Your task to perform on an android device: Open the contacts Image 0: 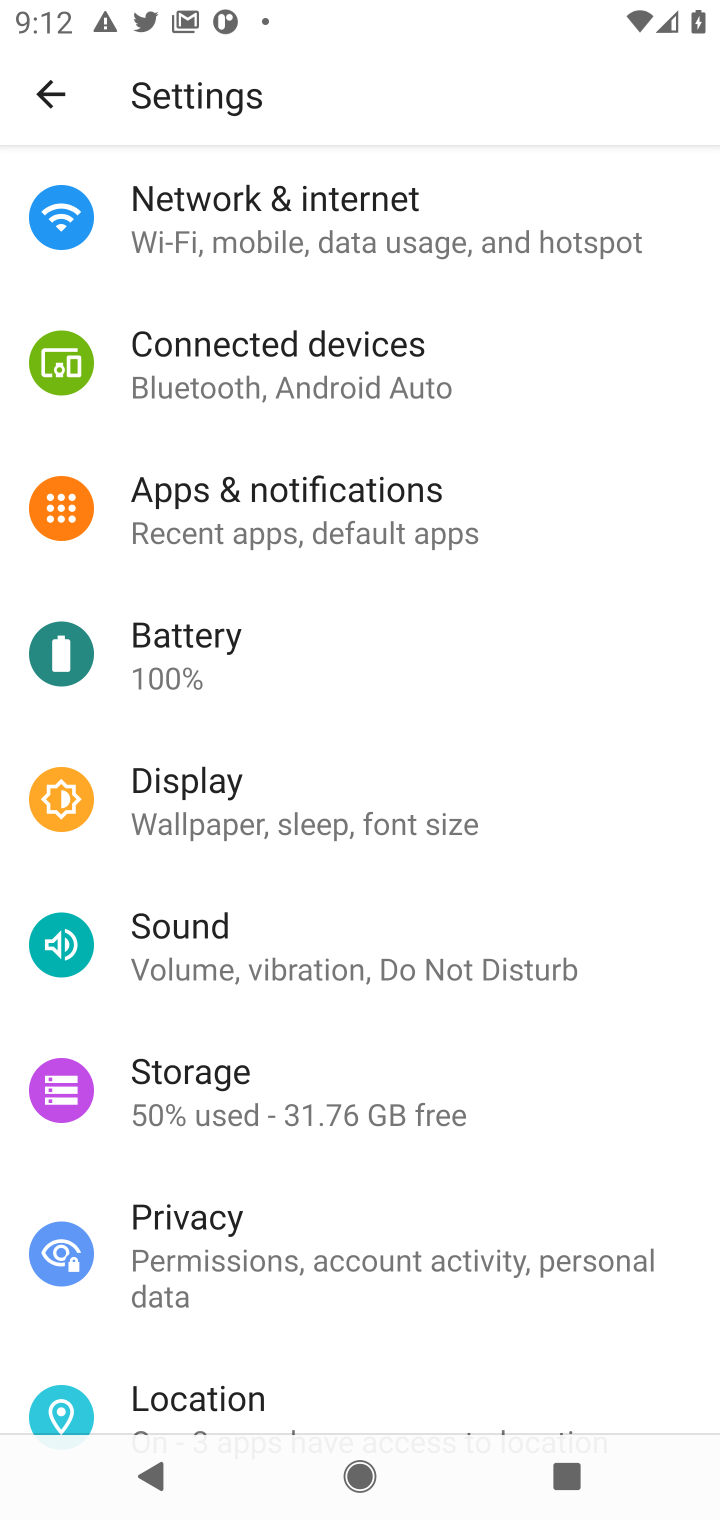
Step 0: press home button
Your task to perform on an android device: Open the contacts Image 1: 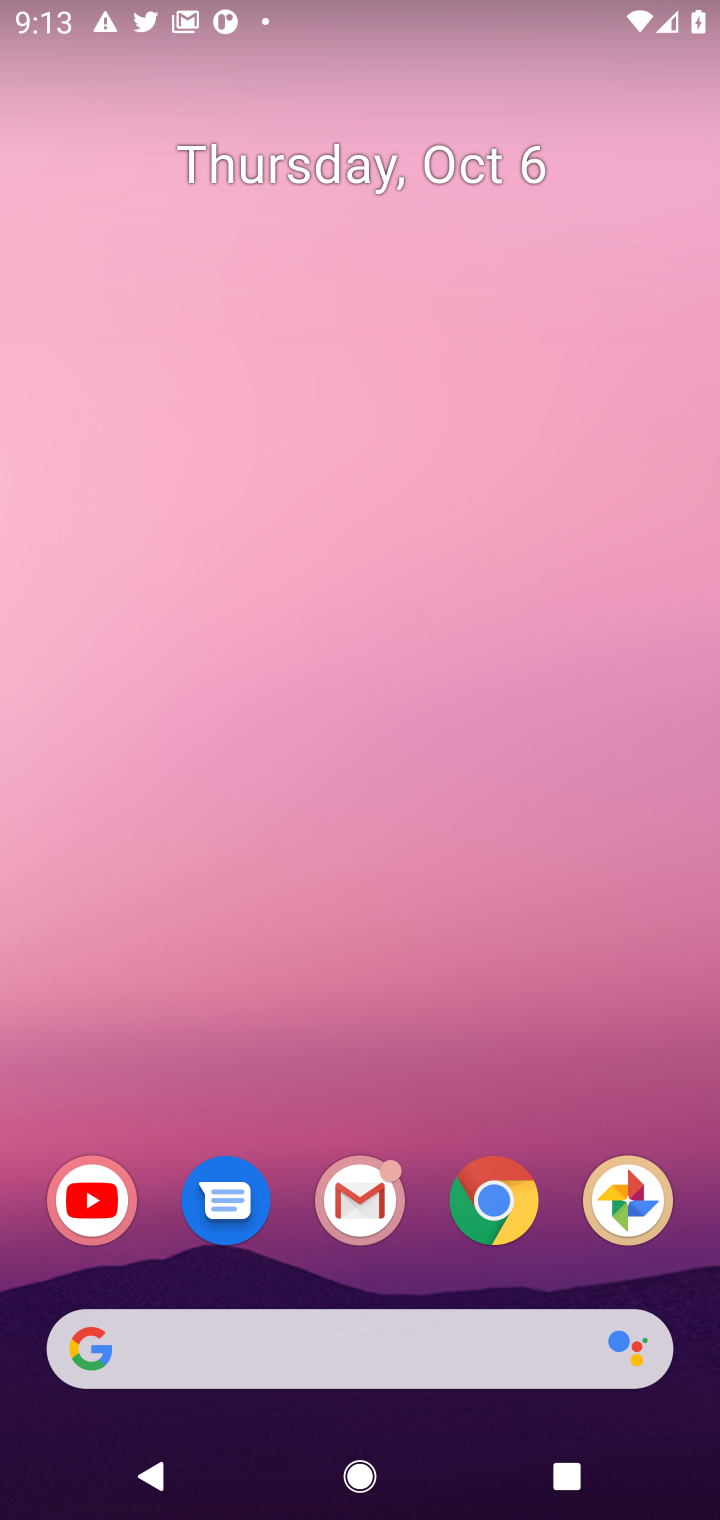
Step 1: click (514, 1187)
Your task to perform on an android device: Open the contacts Image 2: 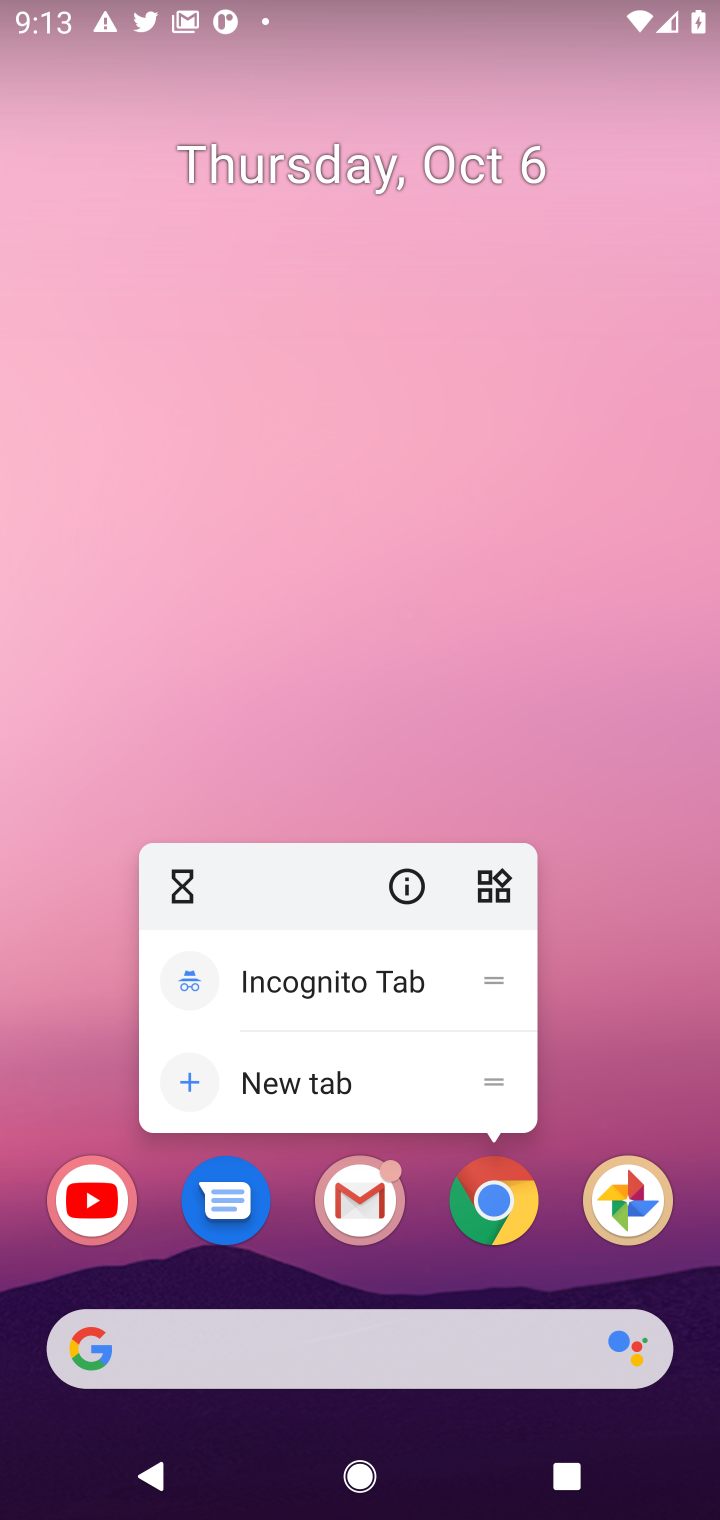
Step 2: click (499, 1201)
Your task to perform on an android device: Open the contacts Image 3: 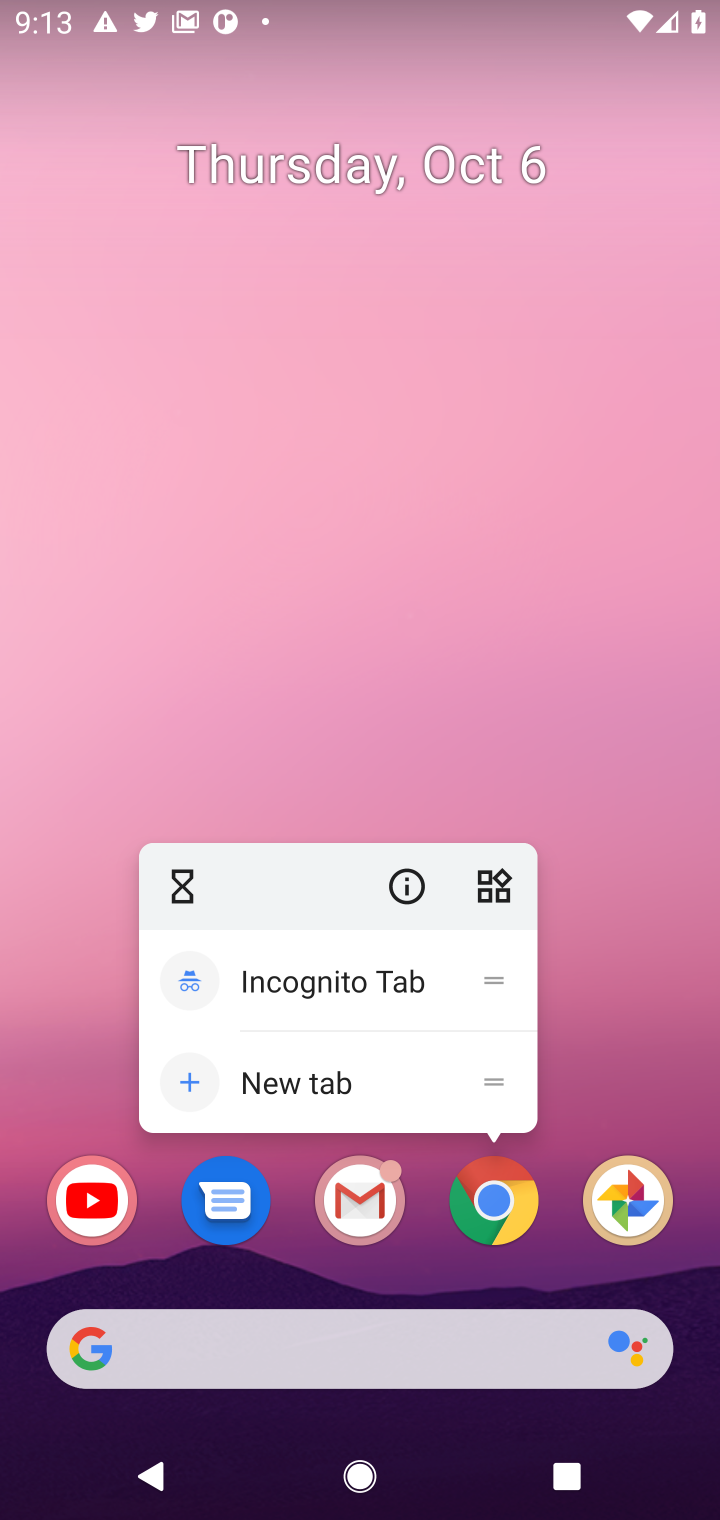
Step 3: press home button
Your task to perform on an android device: Open the contacts Image 4: 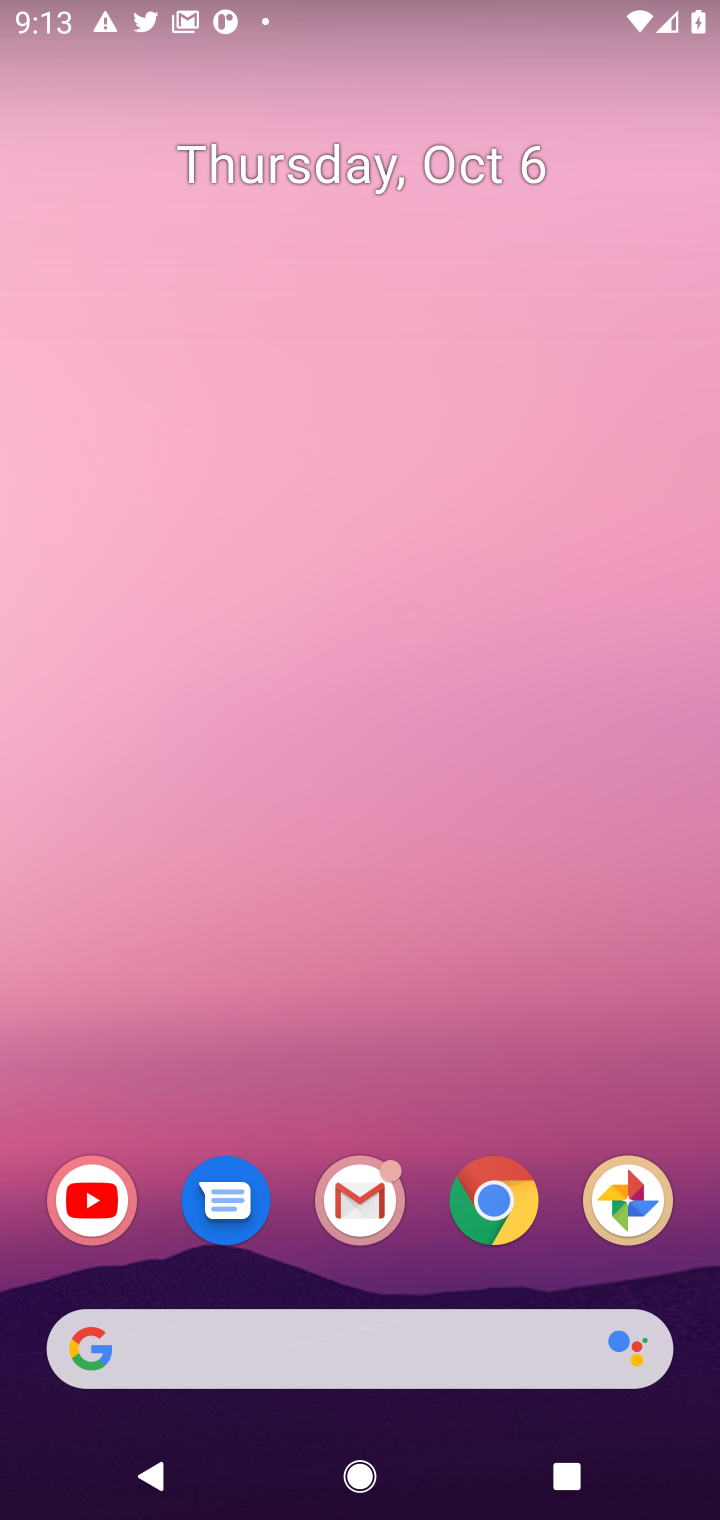
Step 4: press back button
Your task to perform on an android device: Open the contacts Image 5: 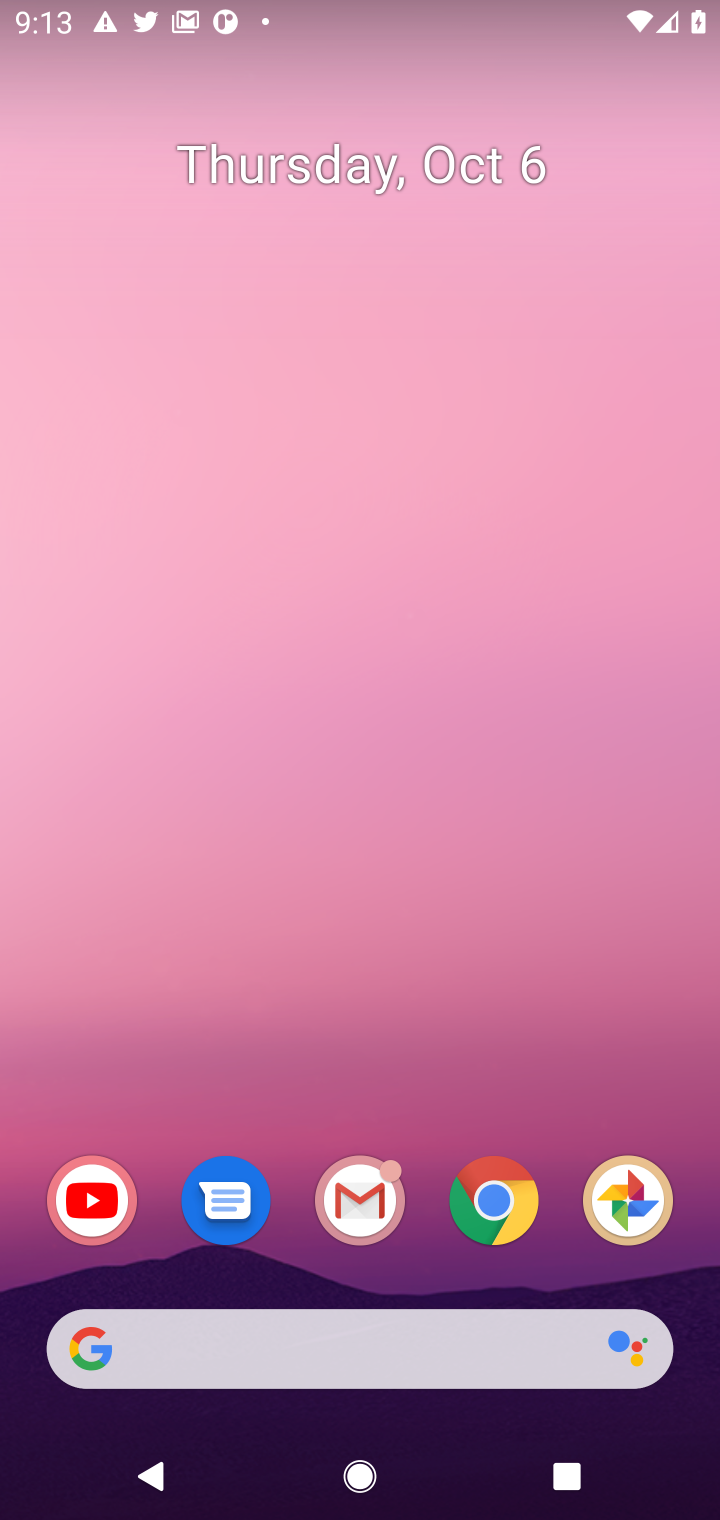
Step 5: press home button
Your task to perform on an android device: Open the contacts Image 6: 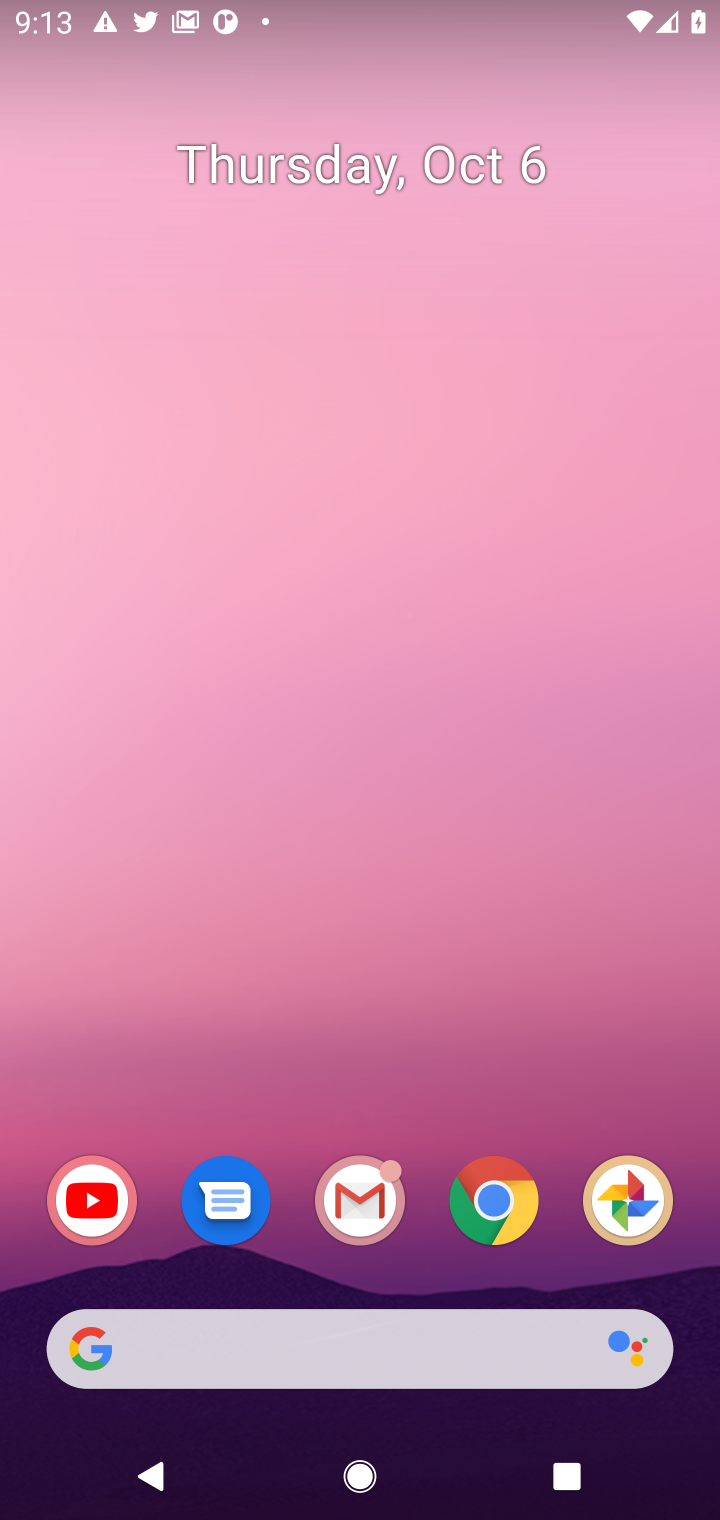
Step 6: press home button
Your task to perform on an android device: Open the contacts Image 7: 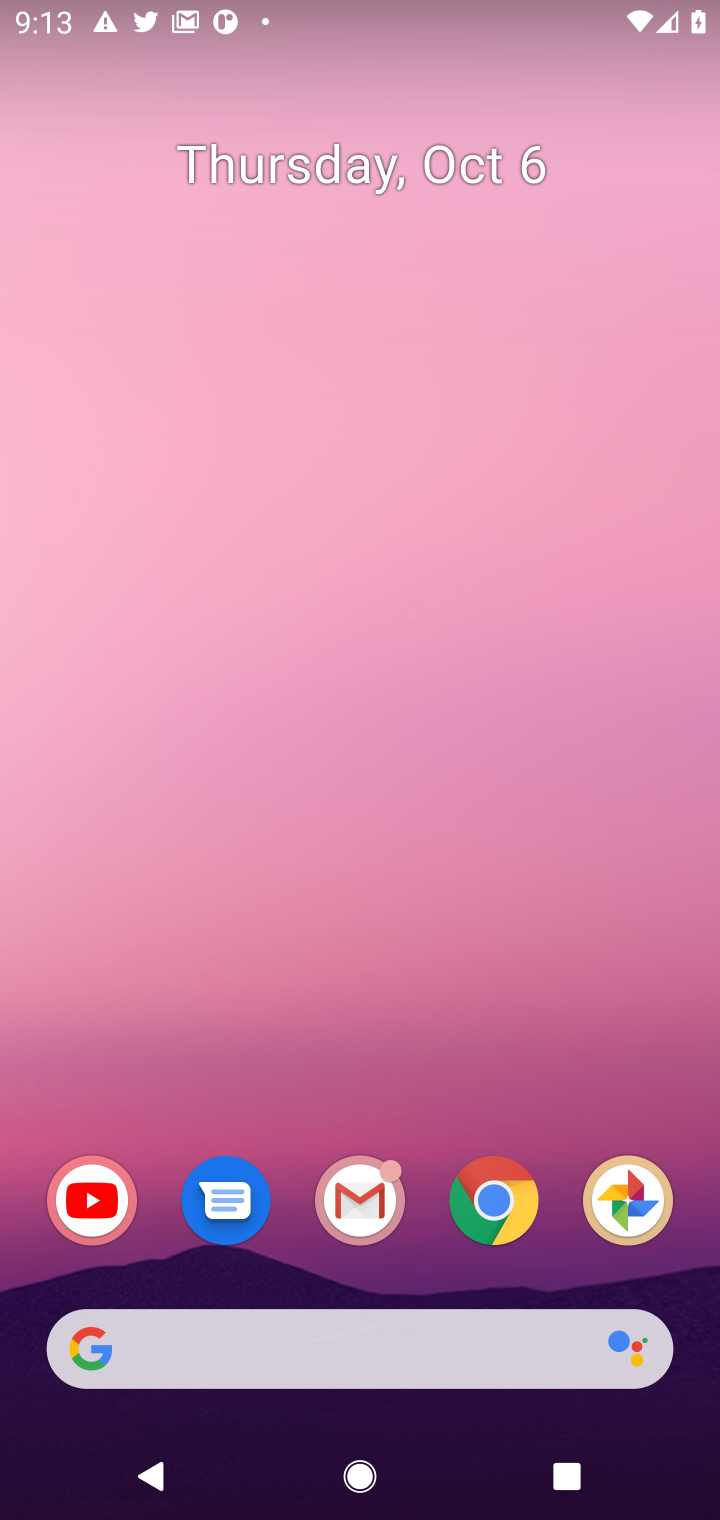
Step 7: click (522, 1212)
Your task to perform on an android device: Open the contacts Image 8: 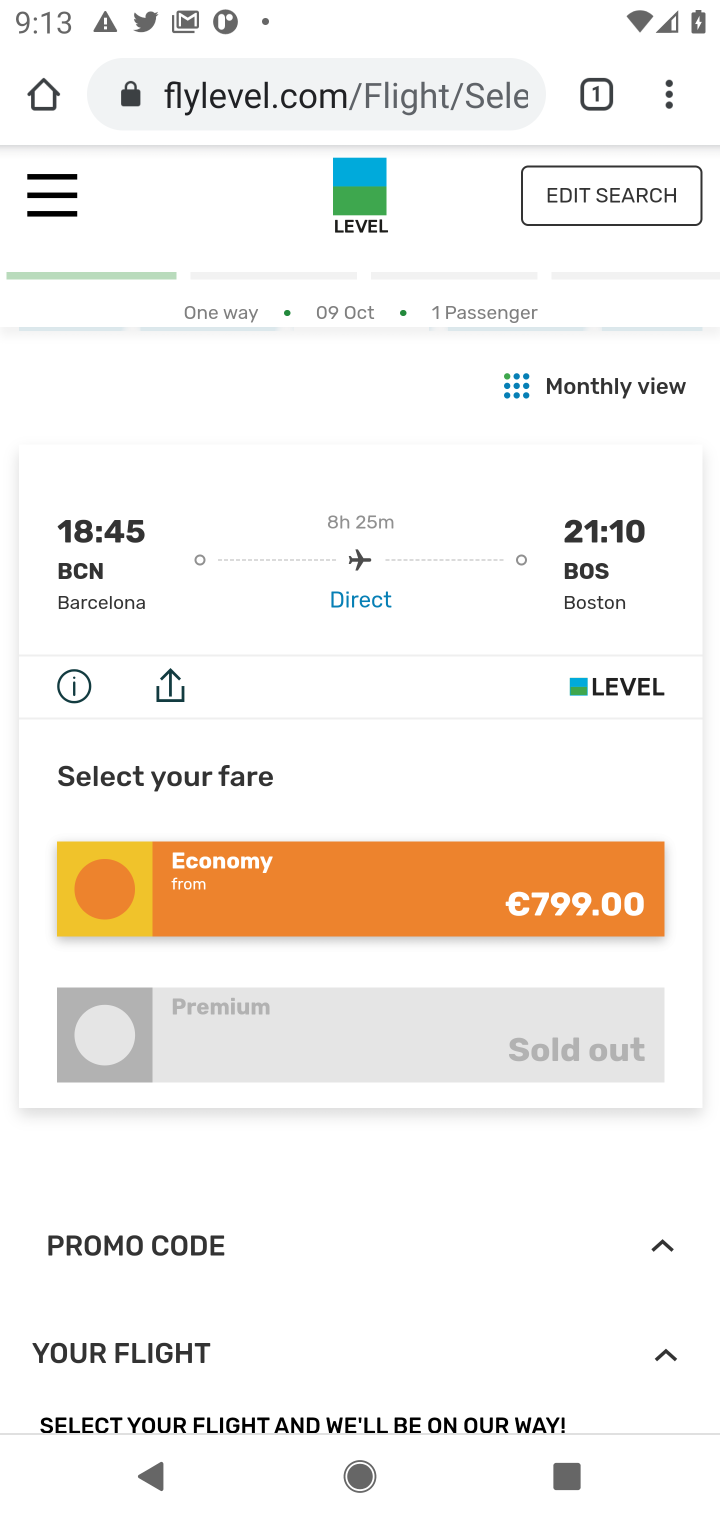
Step 8: click (439, 83)
Your task to perform on an android device: Open the contacts Image 9: 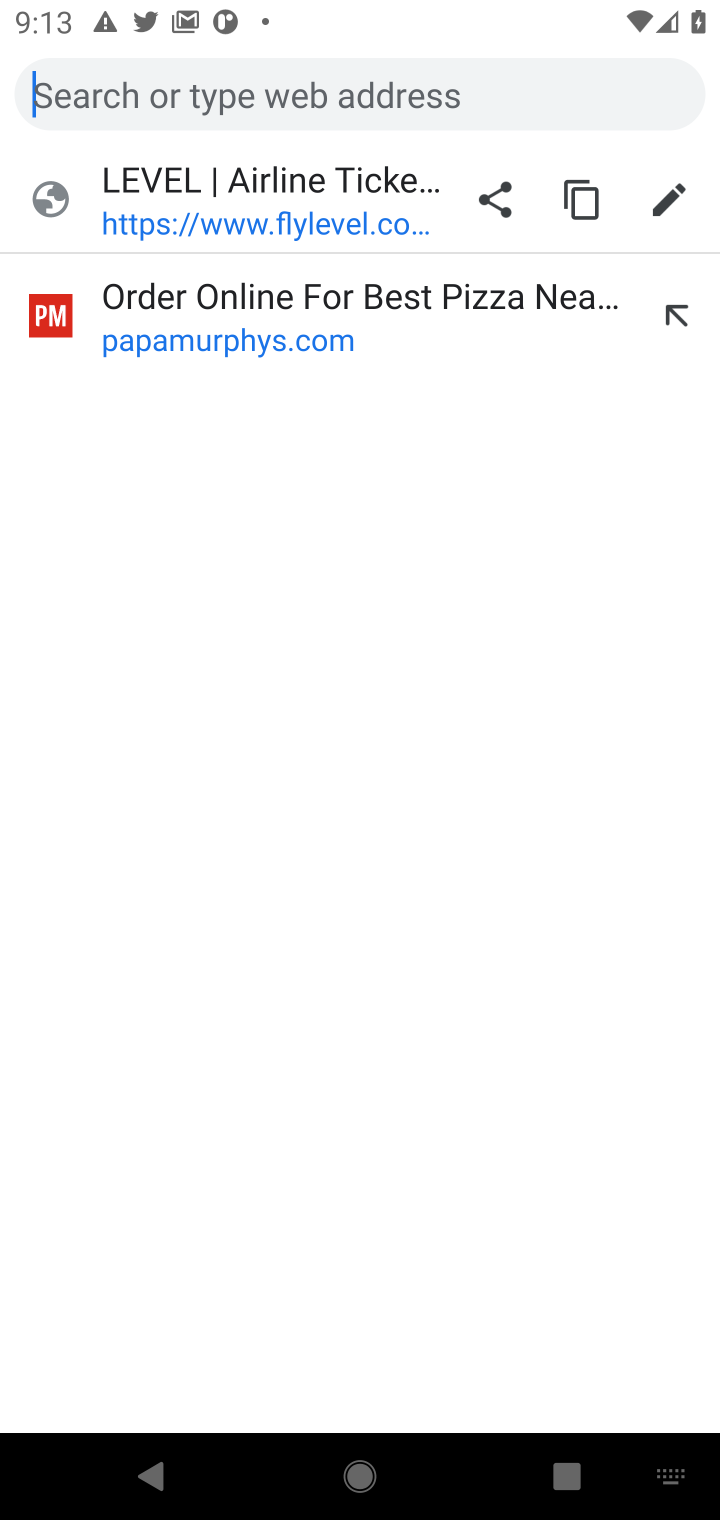
Step 9: press home button
Your task to perform on an android device: Open the contacts Image 10: 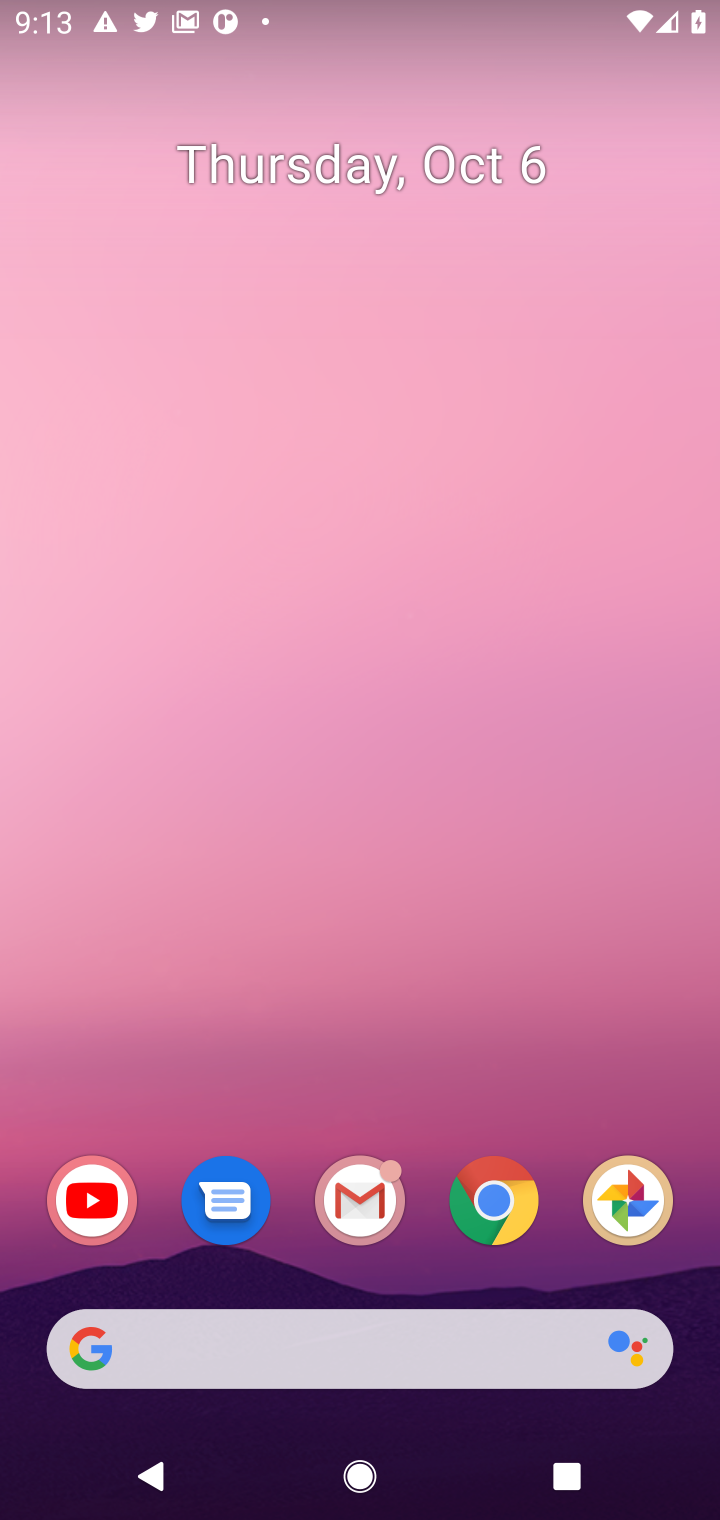
Step 10: drag from (402, 1105) to (441, 526)
Your task to perform on an android device: Open the contacts Image 11: 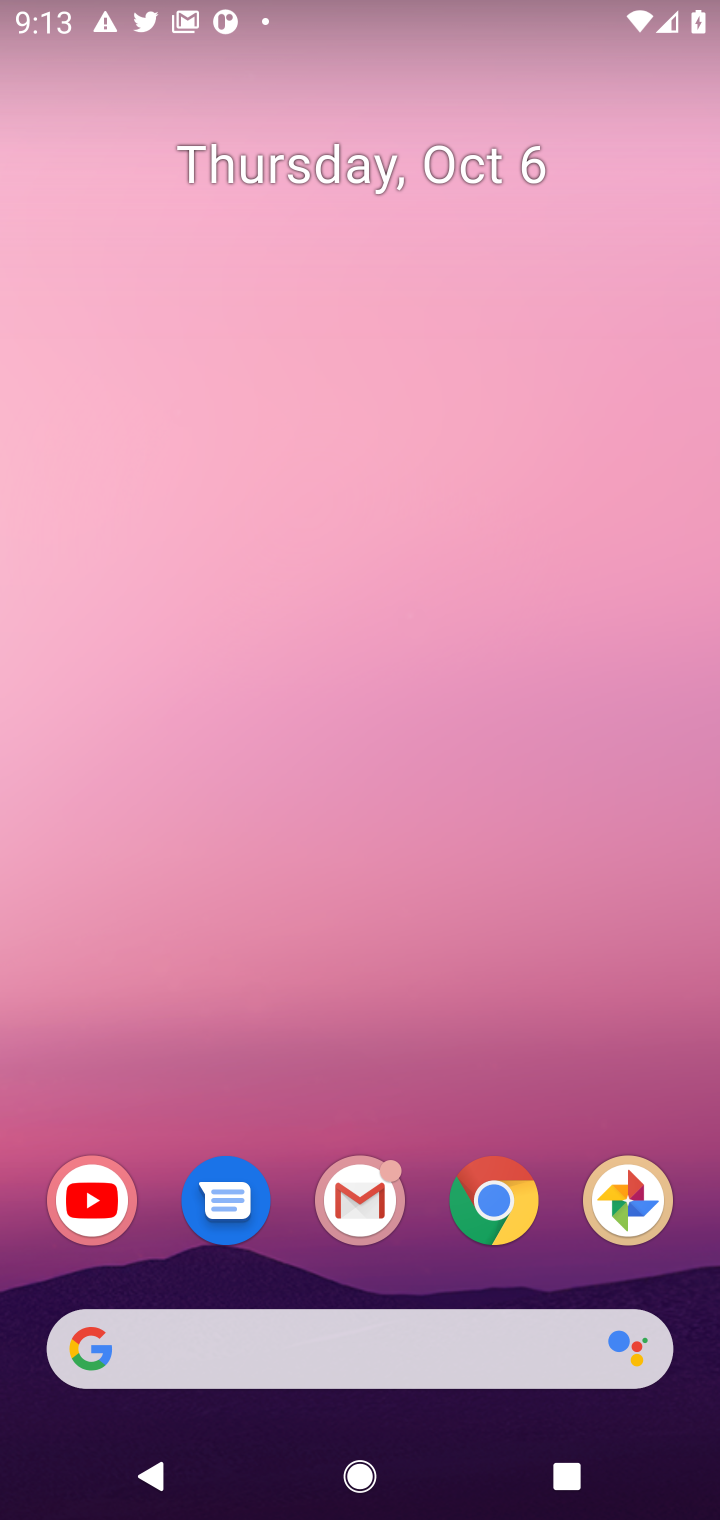
Step 11: drag from (428, 846) to (454, 444)
Your task to perform on an android device: Open the contacts Image 12: 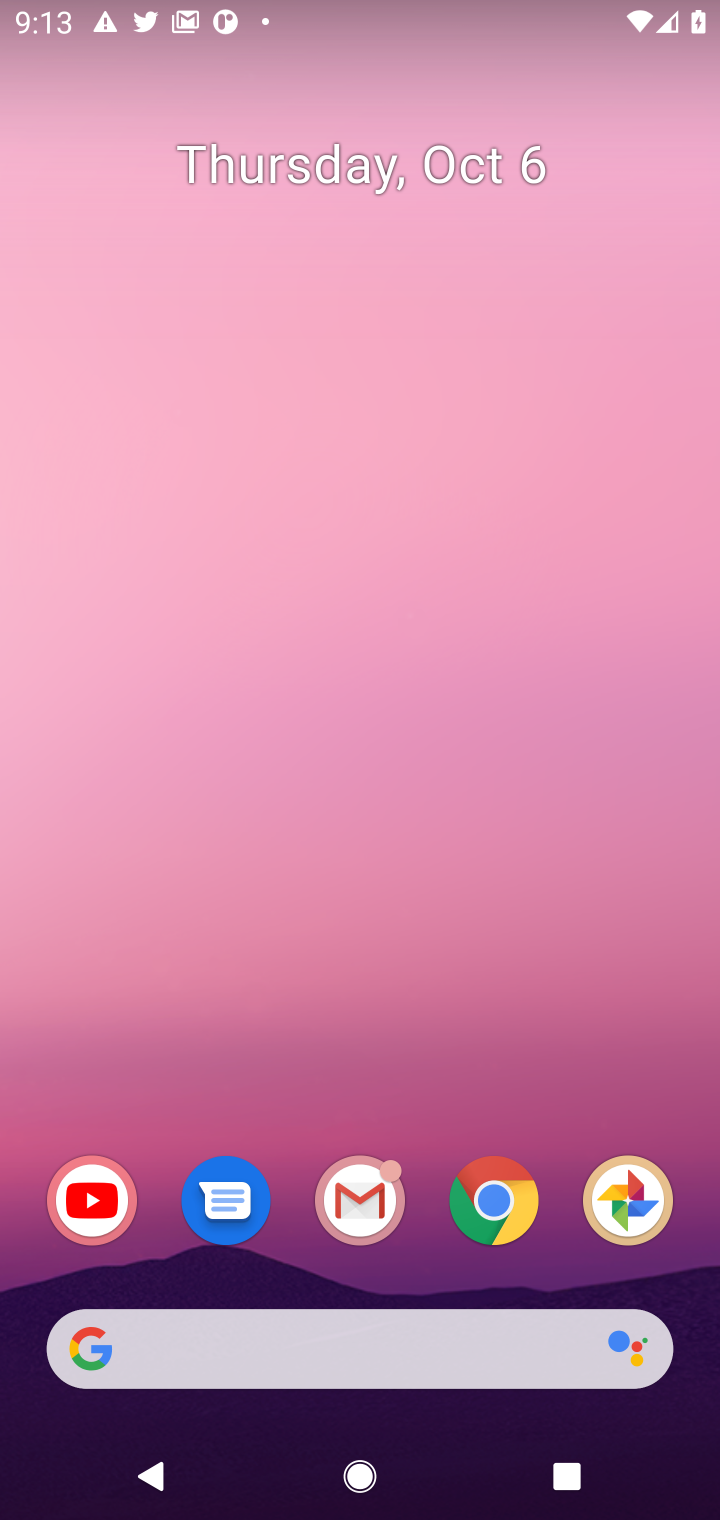
Step 12: drag from (387, 632) to (452, 191)
Your task to perform on an android device: Open the contacts Image 13: 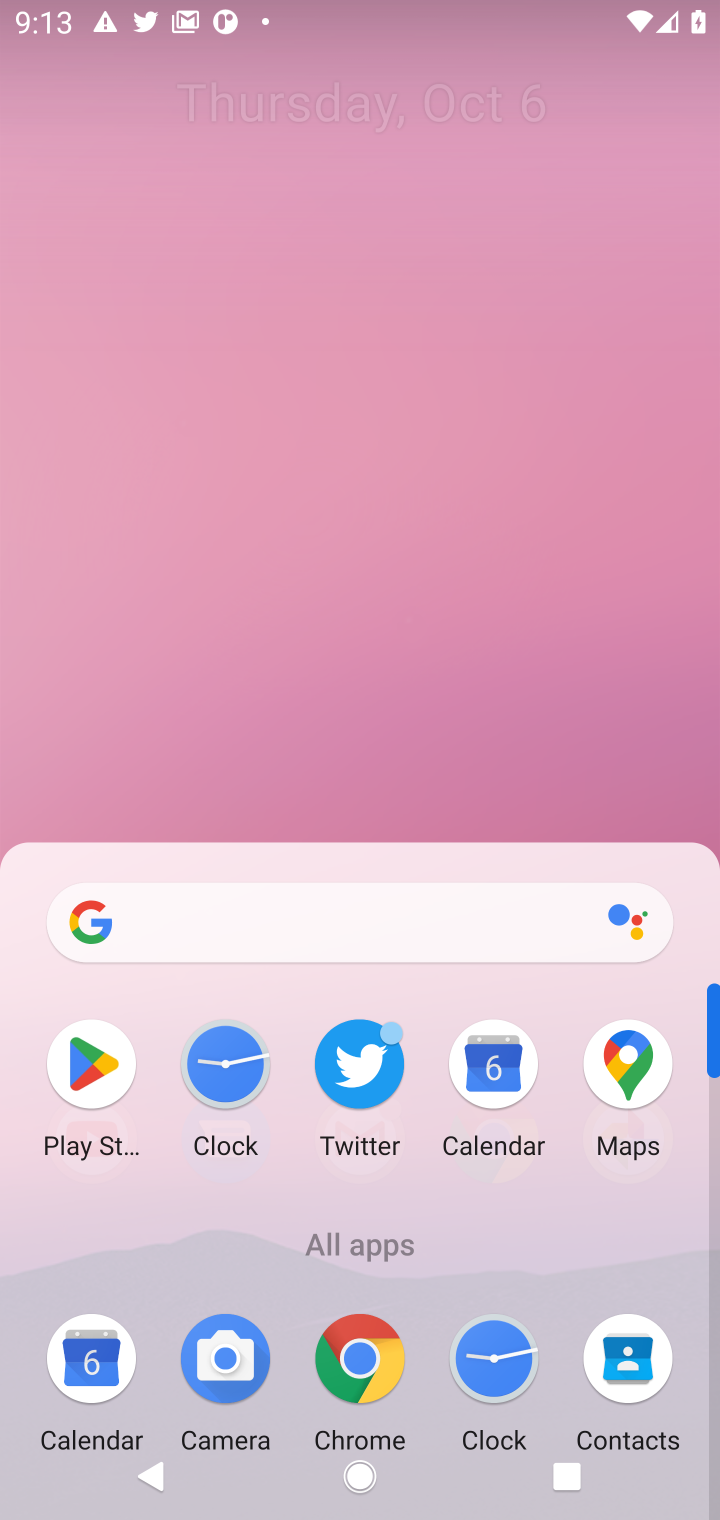
Step 13: drag from (374, 1120) to (491, 522)
Your task to perform on an android device: Open the contacts Image 14: 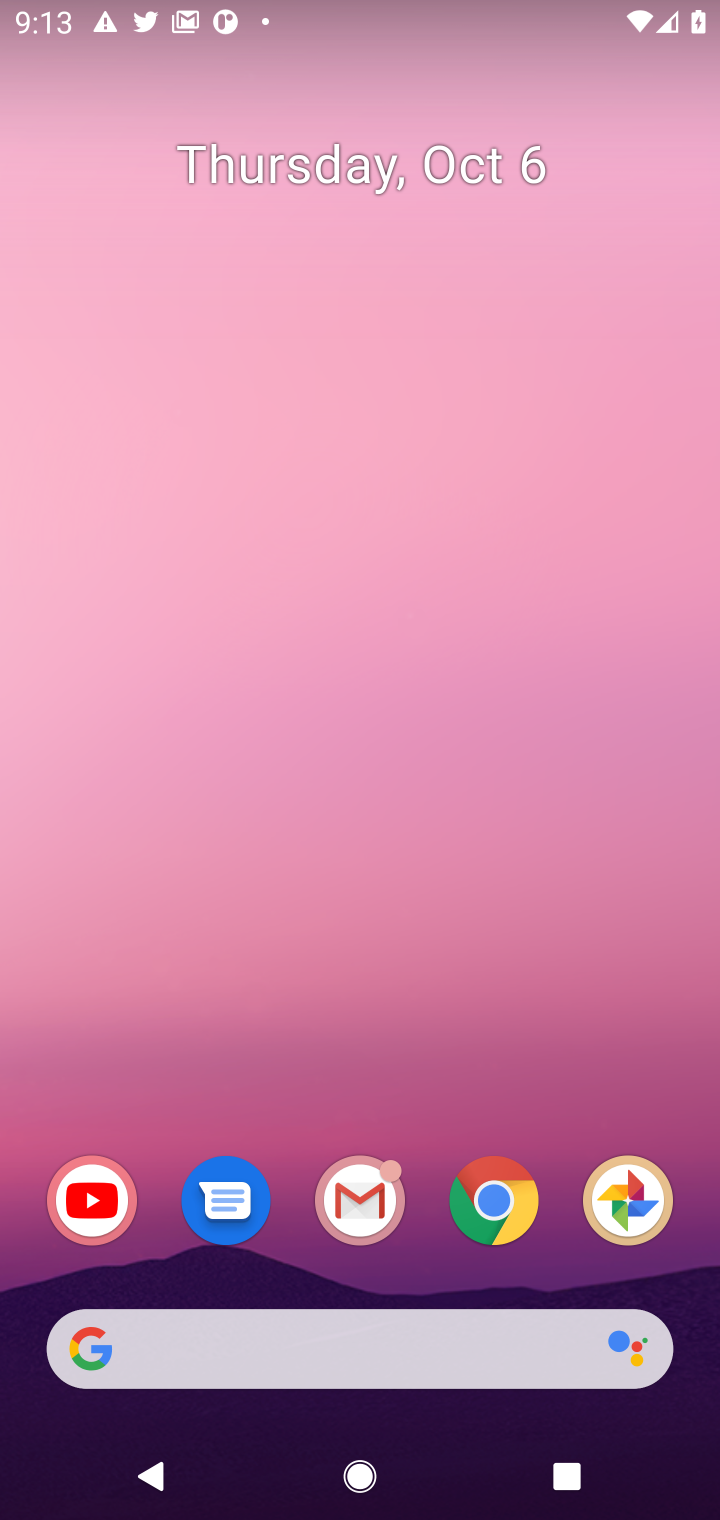
Step 14: drag from (315, 1313) to (504, 277)
Your task to perform on an android device: Open the contacts Image 15: 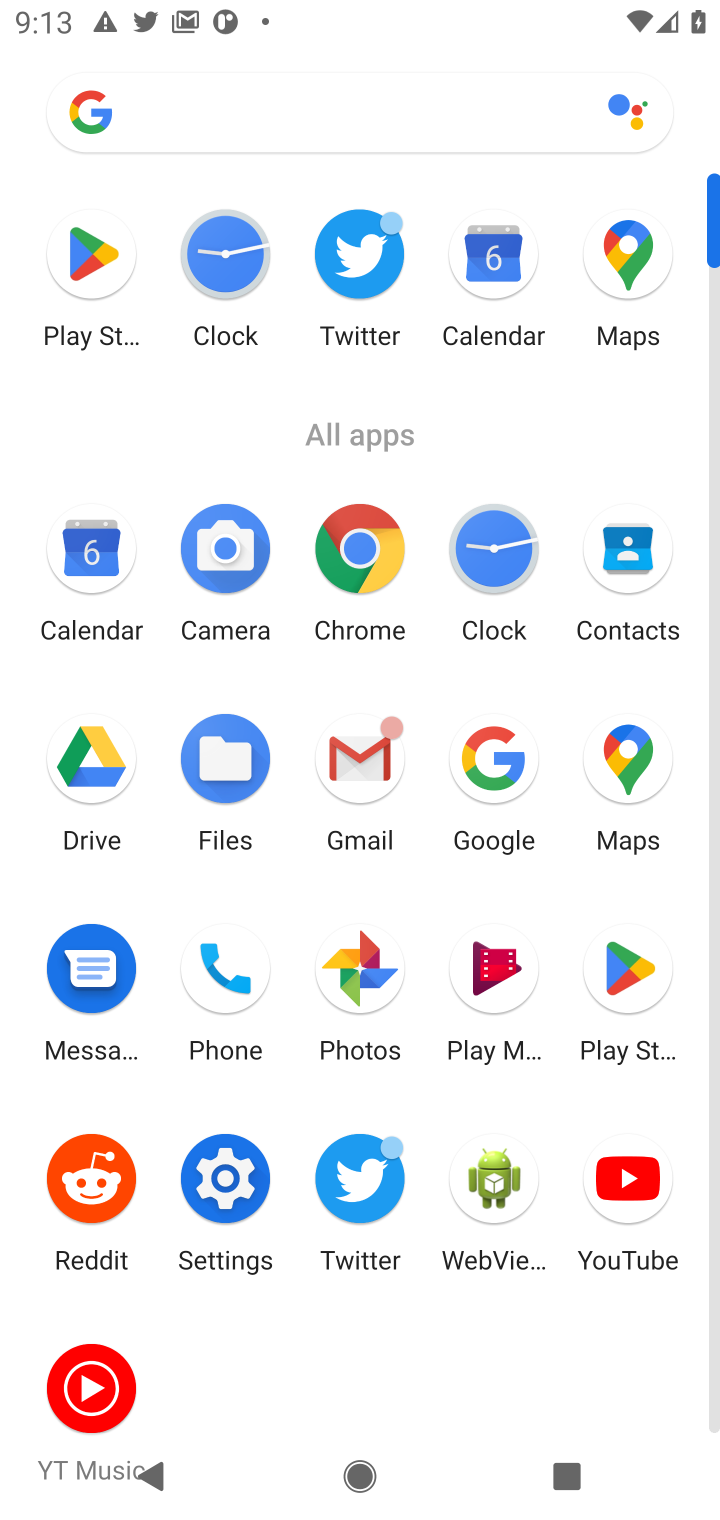
Step 15: click (640, 527)
Your task to perform on an android device: Open the contacts Image 16: 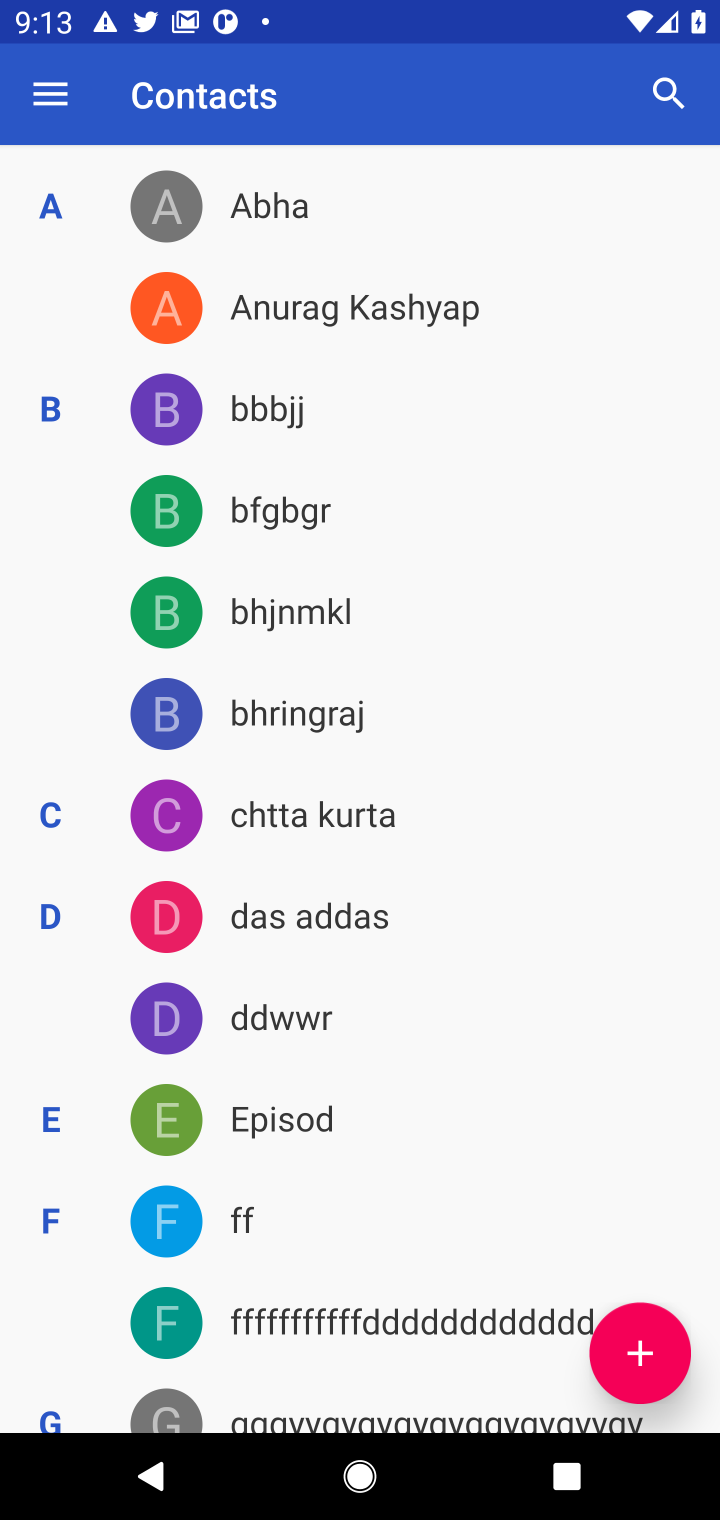
Step 16: task complete